Your task to perform on an android device: Open calendar and show me the fourth week of next month Image 0: 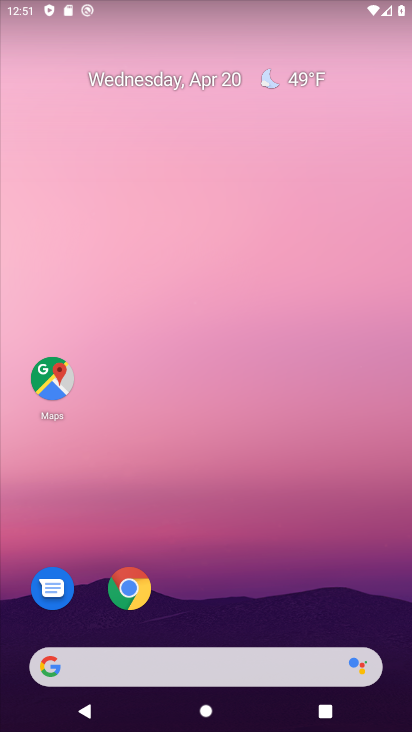
Step 0: drag from (176, 663) to (317, 70)
Your task to perform on an android device: Open calendar and show me the fourth week of next month Image 1: 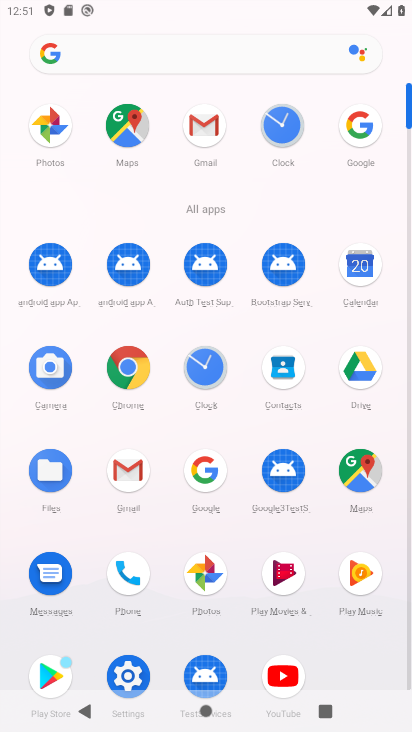
Step 1: click (357, 276)
Your task to perform on an android device: Open calendar and show me the fourth week of next month Image 2: 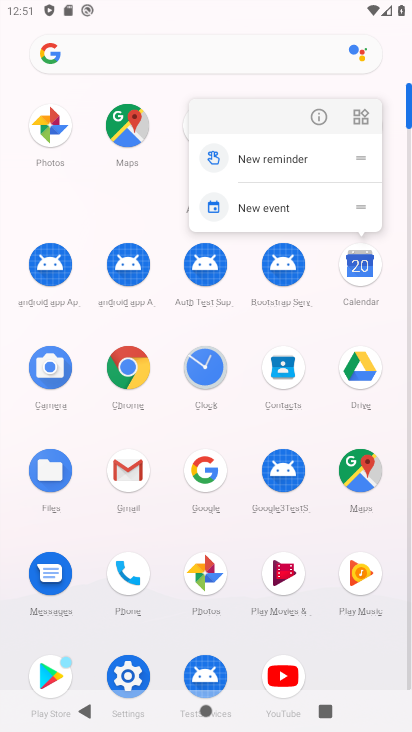
Step 2: click (360, 271)
Your task to perform on an android device: Open calendar and show me the fourth week of next month Image 3: 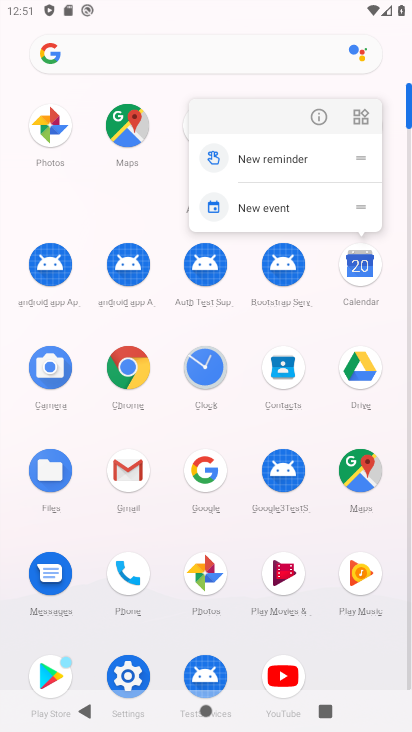
Step 3: click (365, 267)
Your task to perform on an android device: Open calendar and show me the fourth week of next month Image 4: 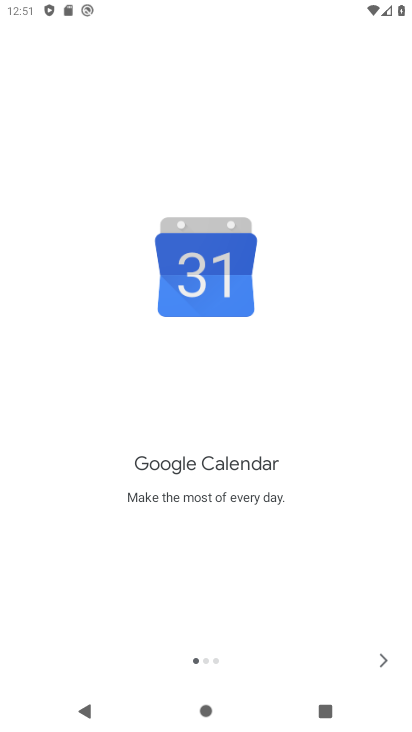
Step 4: click (381, 660)
Your task to perform on an android device: Open calendar and show me the fourth week of next month Image 5: 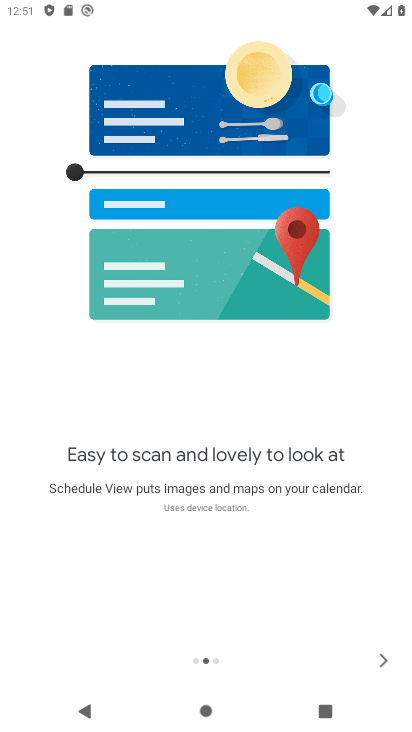
Step 5: click (381, 666)
Your task to perform on an android device: Open calendar and show me the fourth week of next month Image 6: 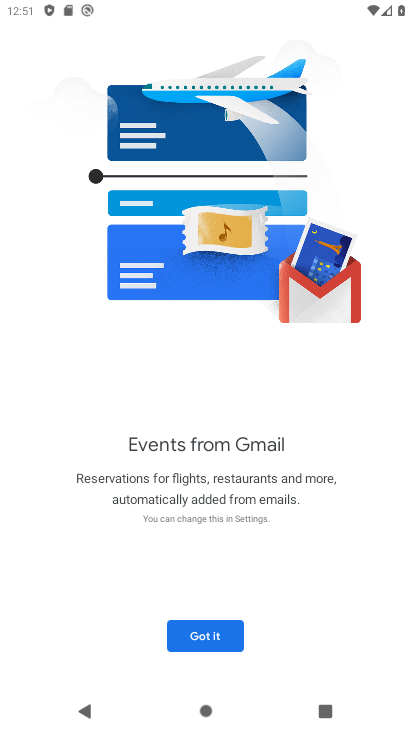
Step 6: click (214, 633)
Your task to perform on an android device: Open calendar and show me the fourth week of next month Image 7: 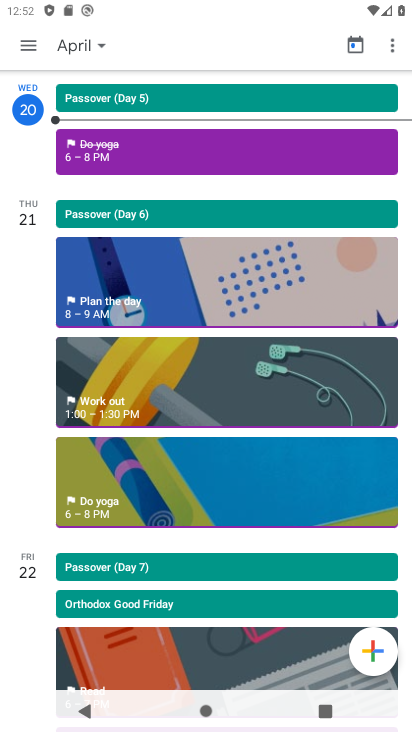
Step 7: click (78, 43)
Your task to perform on an android device: Open calendar and show me the fourth week of next month Image 8: 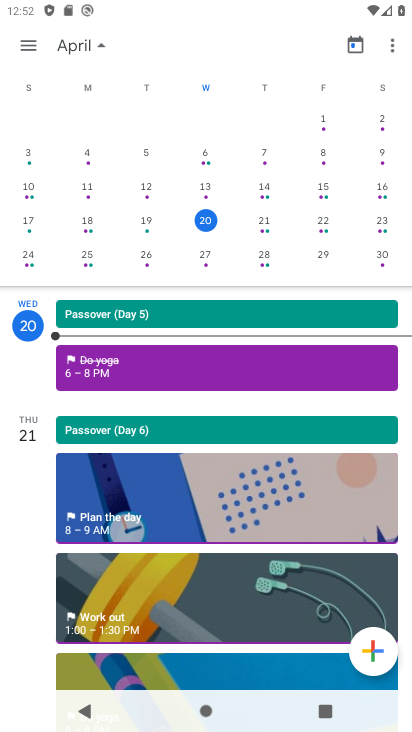
Step 8: drag from (330, 231) to (11, 243)
Your task to perform on an android device: Open calendar and show me the fourth week of next month Image 9: 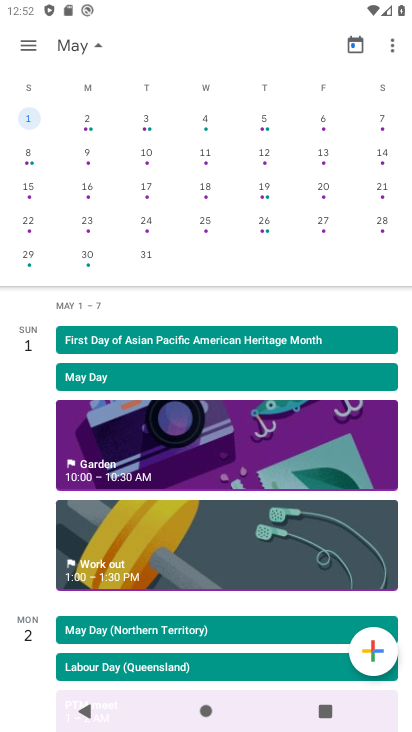
Step 9: click (31, 223)
Your task to perform on an android device: Open calendar and show me the fourth week of next month Image 10: 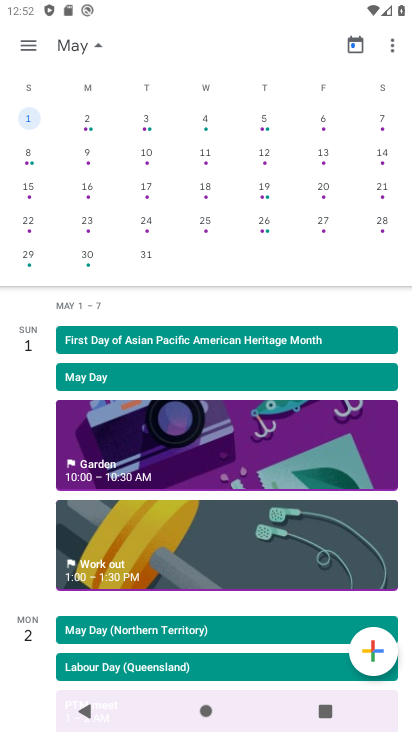
Step 10: click (30, 221)
Your task to perform on an android device: Open calendar and show me the fourth week of next month Image 11: 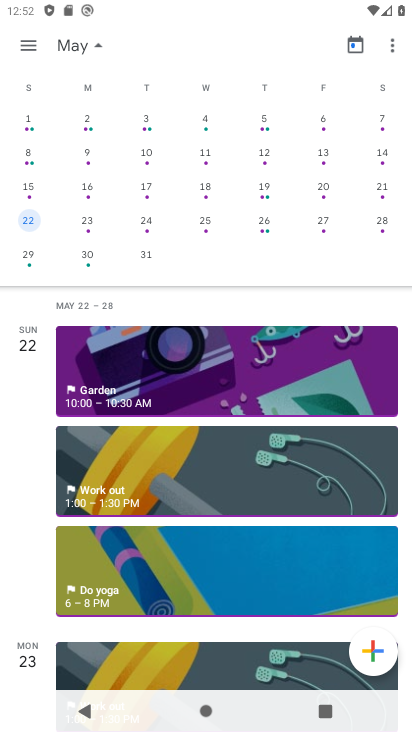
Step 11: click (29, 40)
Your task to perform on an android device: Open calendar and show me the fourth week of next month Image 12: 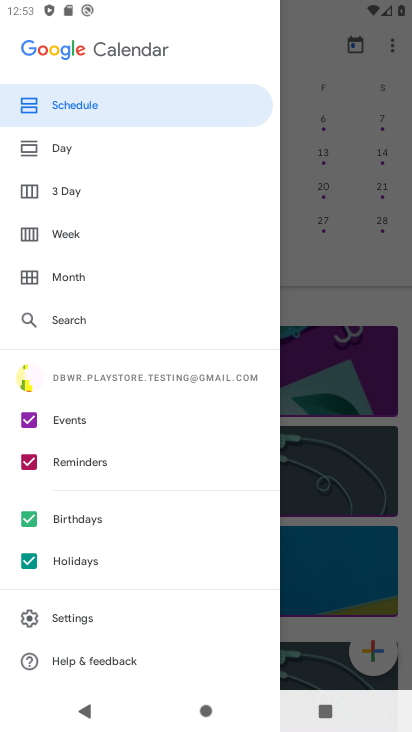
Step 12: click (72, 233)
Your task to perform on an android device: Open calendar and show me the fourth week of next month Image 13: 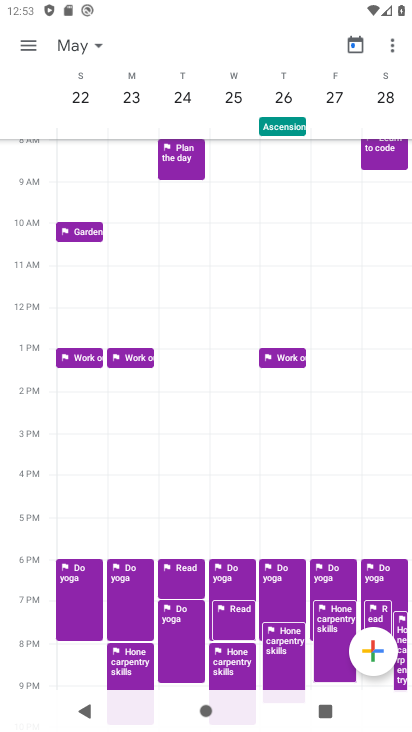
Step 13: task complete